Your task to perform on an android device: Open my contact list Image 0: 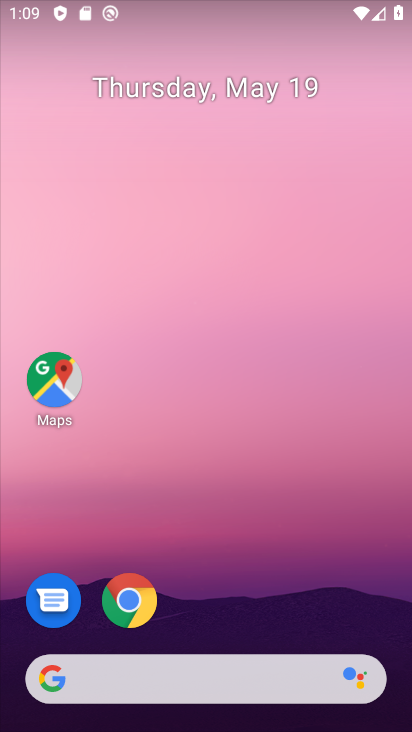
Step 0: drag from (281, 630) to (231, 106)
Your task to perform on an android device: Open my contact list Image 1: 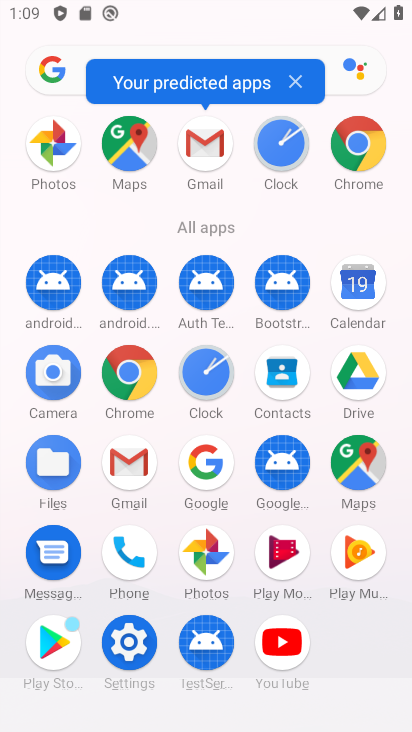
Step 1: click (279, 367)
Your task to perform on an android device: Open my contact list Image 2: 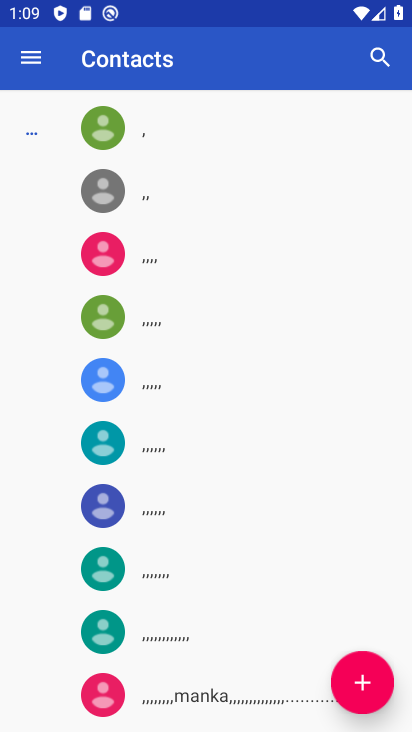
Step 2: task complete